Your task to perform on an android device: toggle location history Image 0: 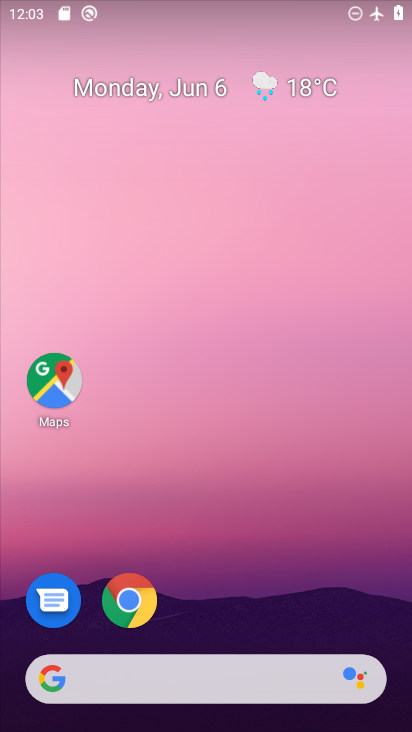
Step 0: drag from (234, 600) to (252, 116)
Your task to perform on an android device: toggle location history Image 1: 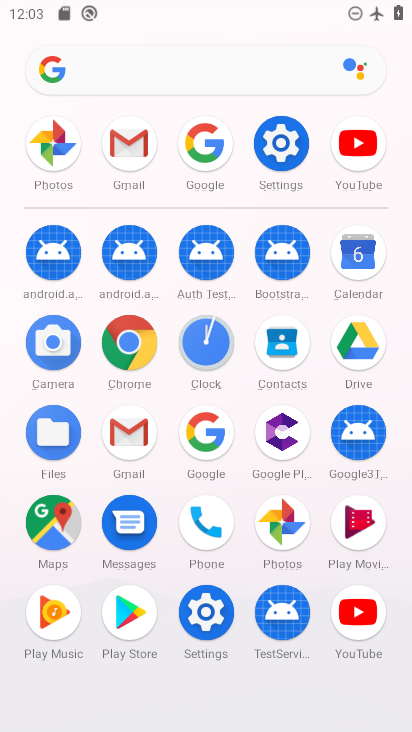
Step 1: click (280, 139)
Your task to perform on an android device: toggle location history Image 2: 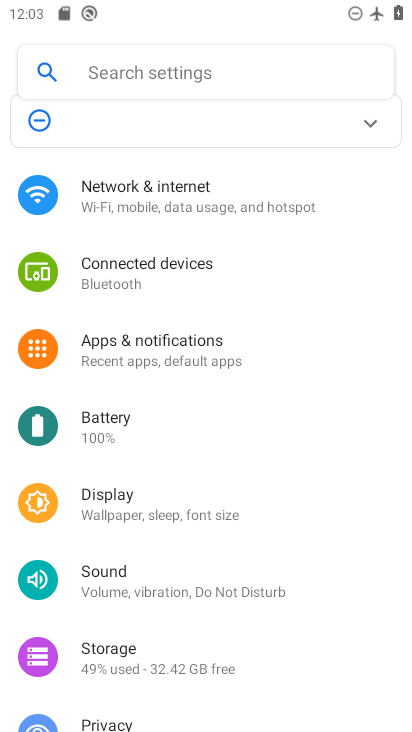
Step 2: drag from (206, 673) to (242, 343)
Your task to perform on an android device: toggle location history Image 3: 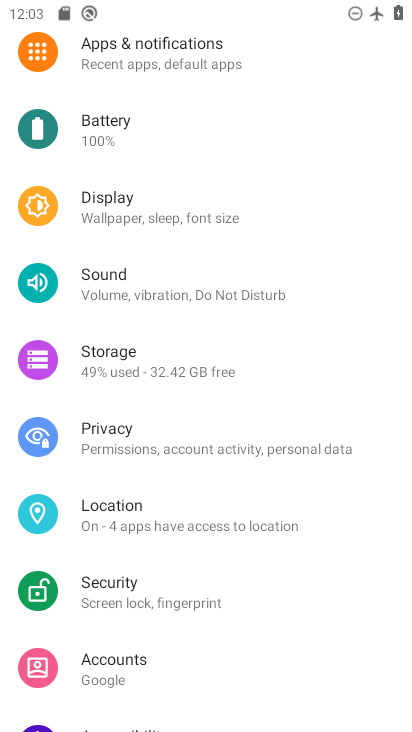
Step 3: click (146, 527)
Your task to perform on an android device: toggle location history Image 4: 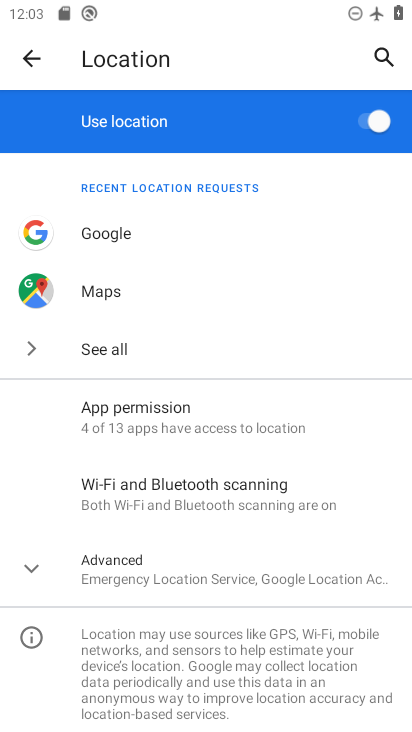
Step 4: click (186, 561)
Your task to perform on an android device: toggle location history Image 5: 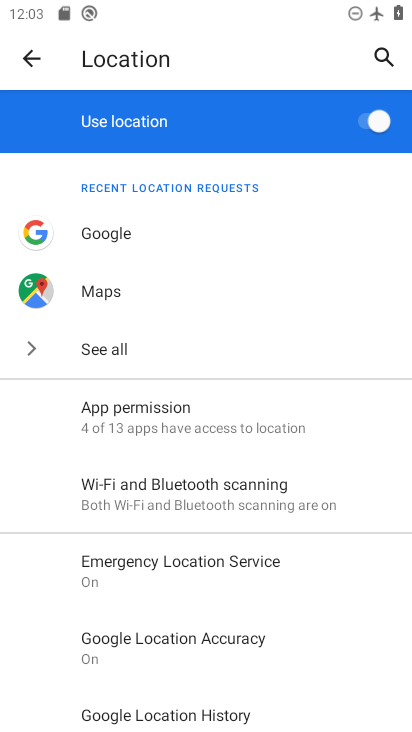
Step 5: click (222, 707)
Your task to perform on an android device: toggle location history Image 6: 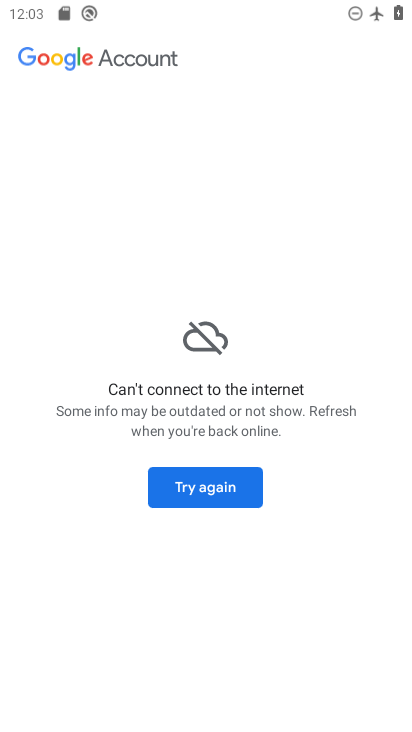
Step 6: task complete